Your task to perform on an android device: turn off smart reply in the gmail app Image 0: 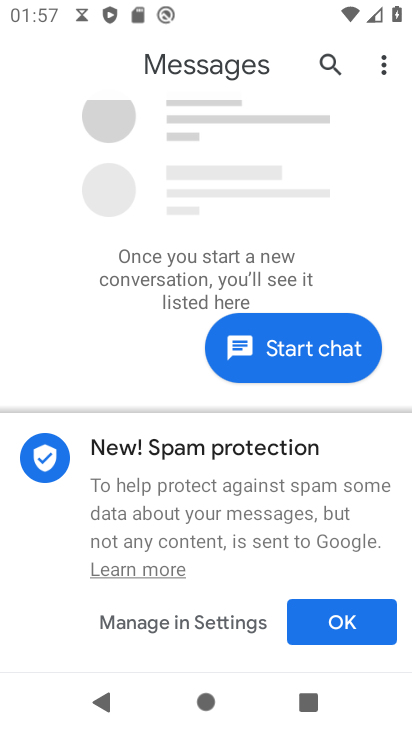
Step 0: press home button
Your task to perform on an android device: turn off smart reply in the gmail app Image 1: 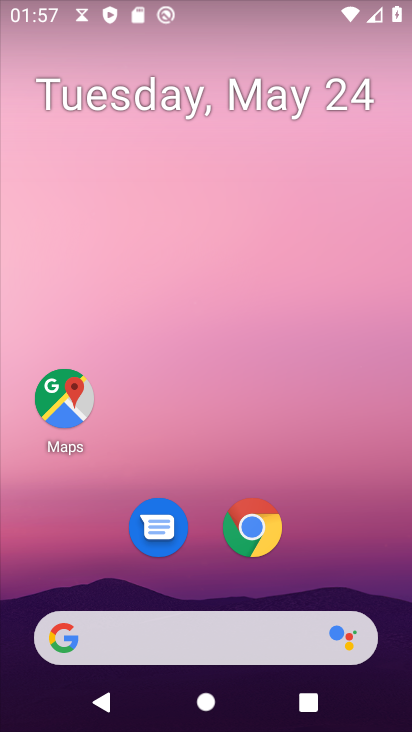
Step 1: drag from (166, 651) to (312, 83)
Your task to perform on an android device: turn off smart reply in the gmail app Image 2: 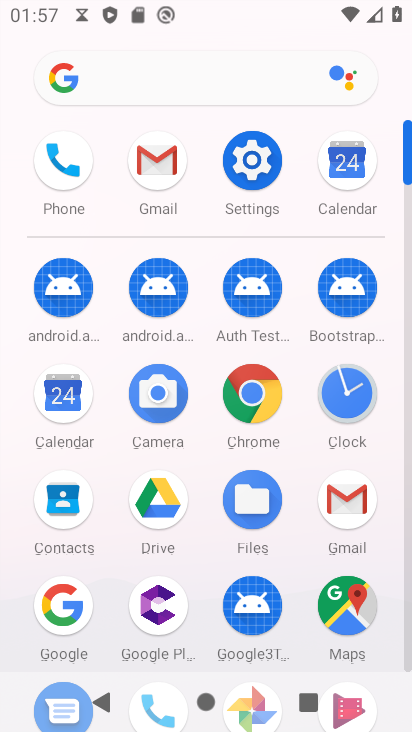
Step 2: click (146, 177)
Your task to perform on an android device: turn off smart reply in the gmail app Image 3: 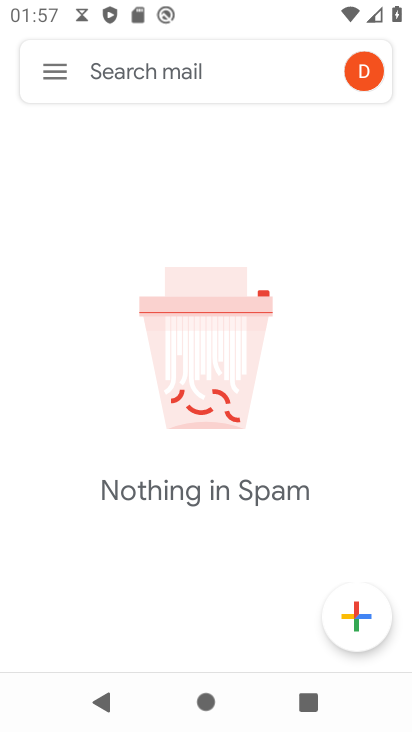
Step 3: click (47, 70)
Your task to perform on an android device: turn off smart reply in the gmail app Image 4: 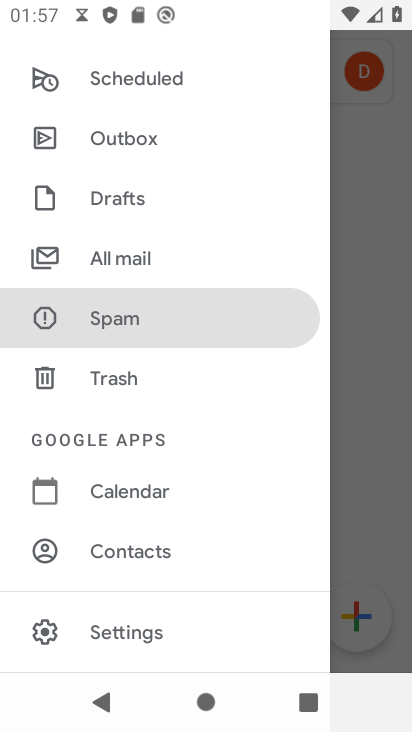
Step 4: click (148, 636)
Your task to perform on an android device: turn off smart reply in the gmail app Image 5: 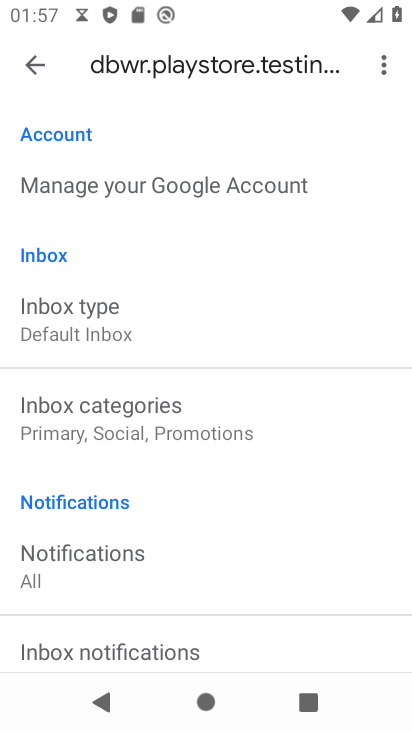
Step 5: task complete